Your task to perform on an android device: Do I have any events this weekend? Image 0: 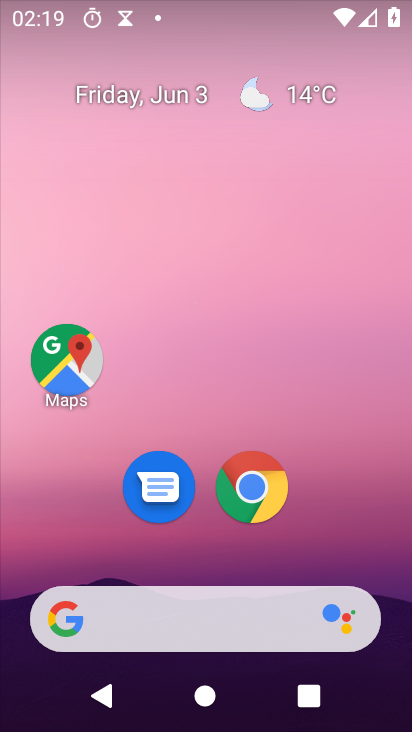
Step 0: click (112, 104)
Your task to perform on an android device: Do I have any events this weekend? Image 1: 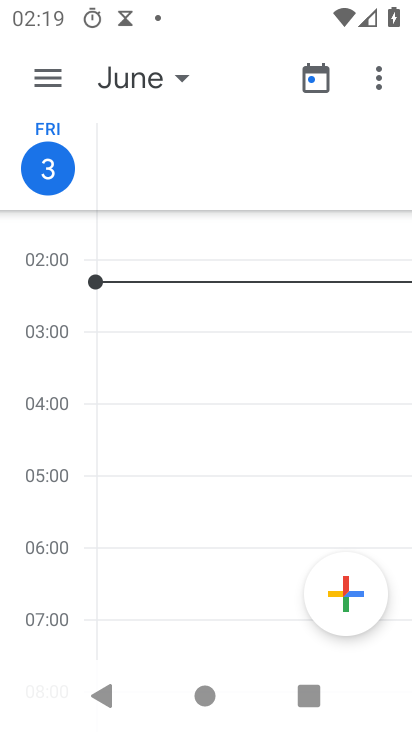
Step 1: click (27, 71)
Your task to perform on an android device: Do I have any events this weekend? Image 2: 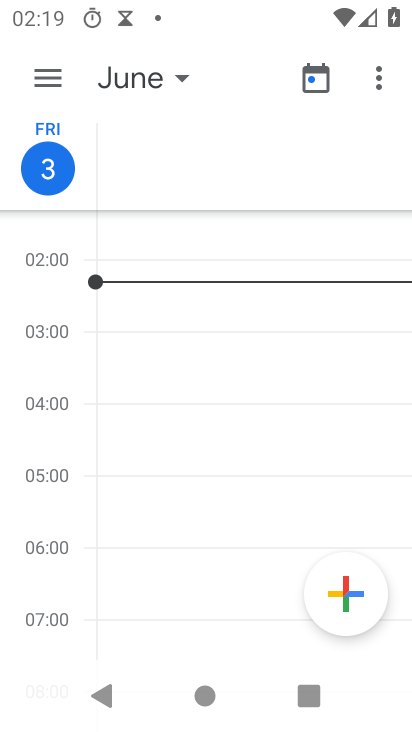
Step 2: click (49, 75)
Your task to perform on an android device: Do I have any events this weekend? Image 3: 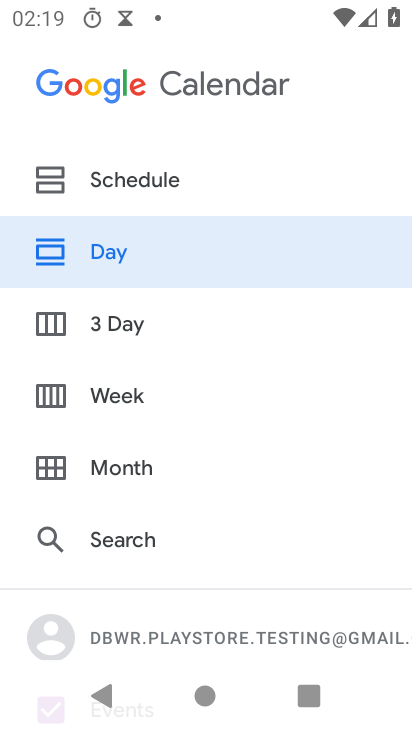
Step 3: click (166, 387)
Your task to perform on an android device: Do I have any events this weekend? Image 4: 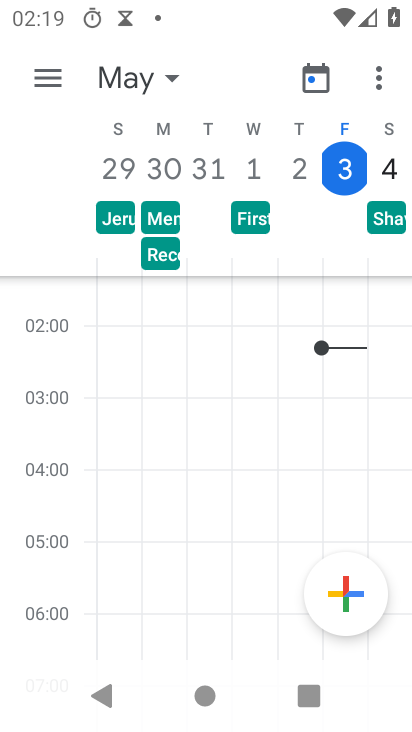
Step 4: task complete